Your task to perform on an android device: turn on javascript in the chrome app Image 0: 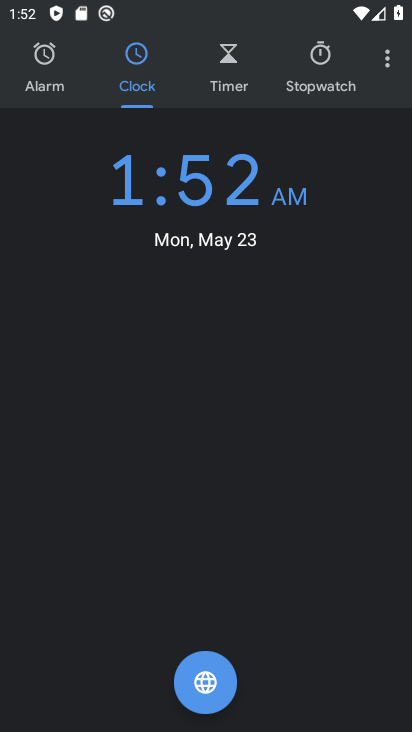
Step 0: press home button
Your task to perform on an android device: turn on javascript in the chrome app Image 1: 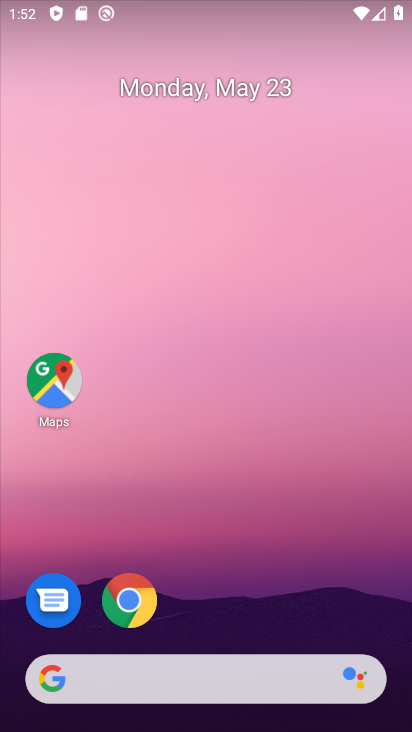
Step 1: drag from (274, 609) to (286, 259)
Your task to perform on an android device: turn on javascript in the chrome app Image 2: 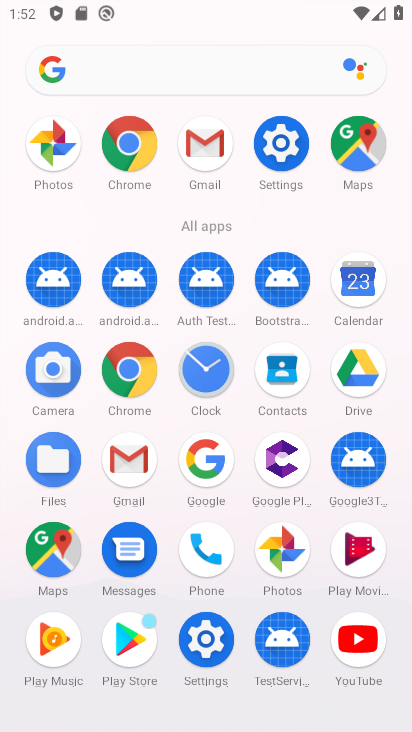
Step 2: click (125, 132)
Your task to perform on an android device: turn on javascript in the chrome app Image 3: 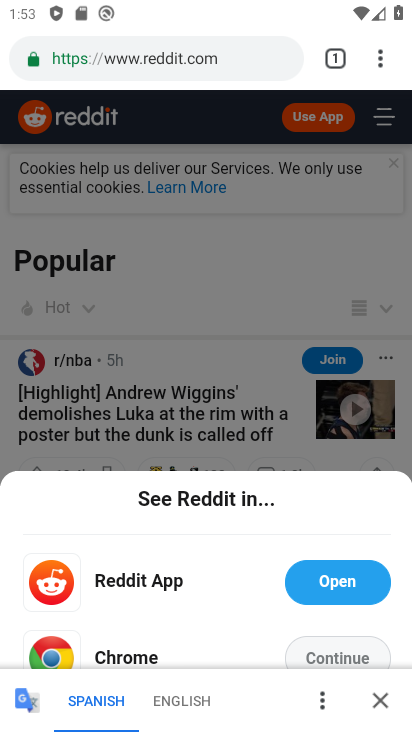
Step 3: click (390, 67)
Your task to perform on an android device: turn on javascript in the chrome app Image 4: 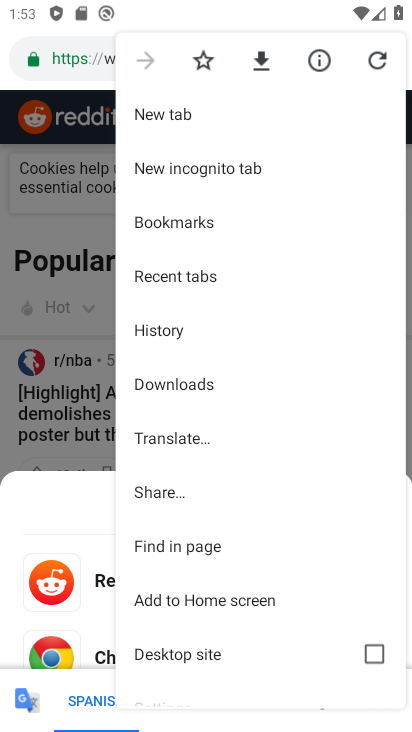
Step 4: drag from (227, 630) to (283, 328)
Your task to perform on an android device: turn on javascript in the chrome app Image 5: 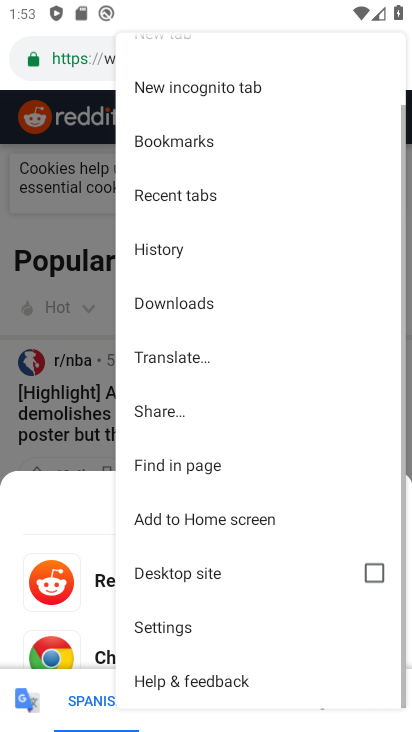
Step 5: click (207, 626)
Your task to perform on an android device: turn on javascript in the chrome app Image 6: 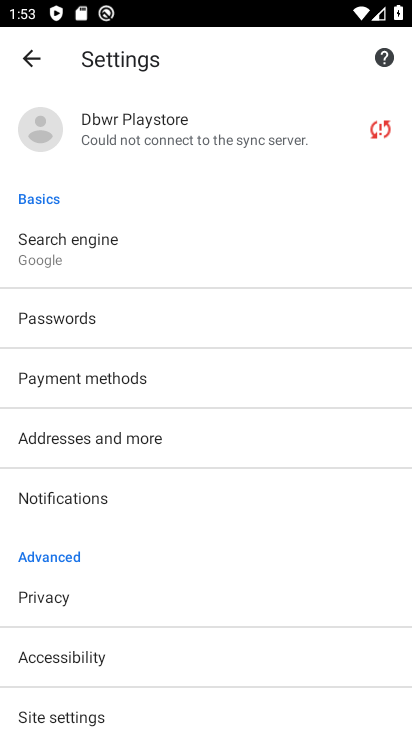
Step 6: task complete